Your task to perform on an android device: turn off sleep mode Image 0: 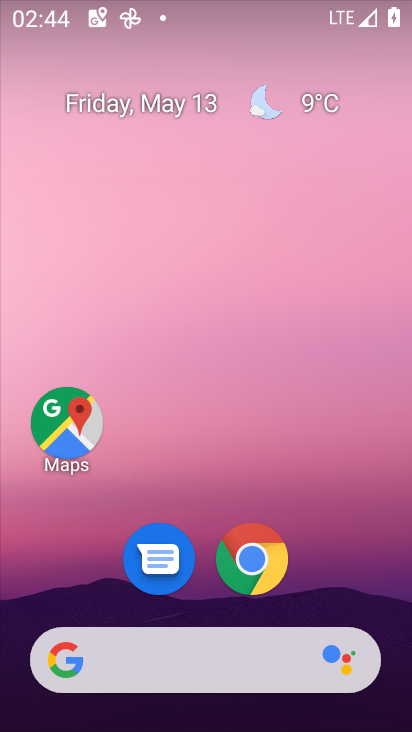
Step 0: drag from (401, 614) to (388, 398)
Your task to perform on an android device: turn off sleep mode Image 1: 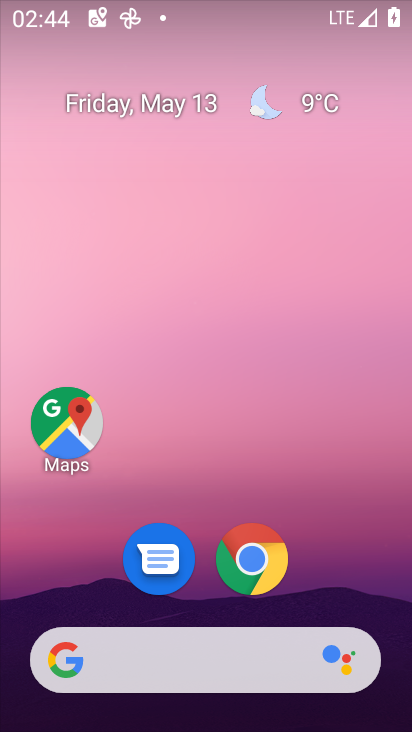
Step 1: drag from (401, 643) to (382, 290)
Your task to perform on an android device: turn off sleep mode Image 2: 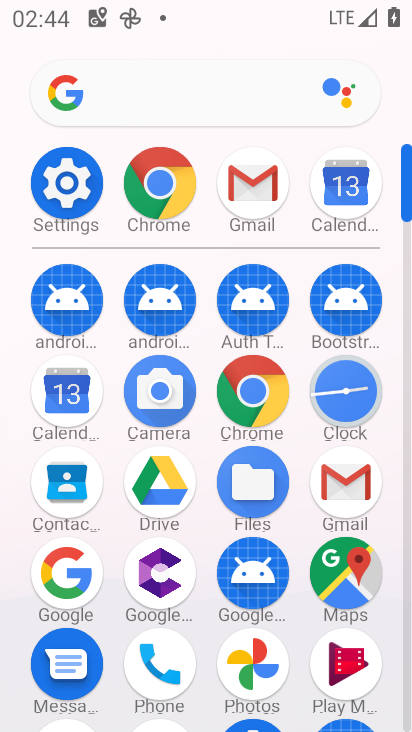
Step 2: click (47, 177)
Your task to perform on an android device: turn off sleep mode Image 3: 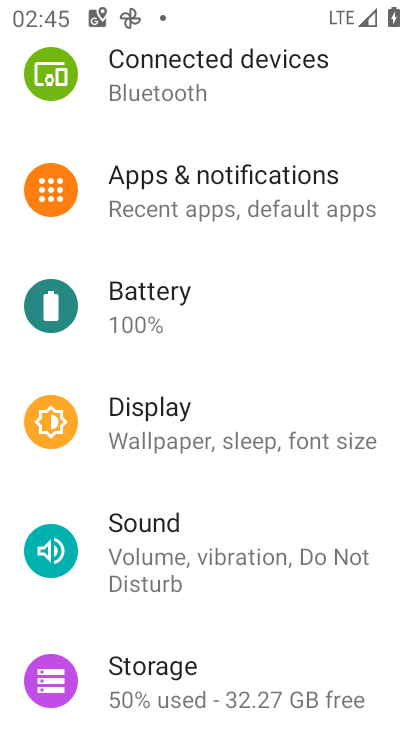
Step 3: click (225, 444)
Your task to perform on an android device: turn off sleep mode Image 4: 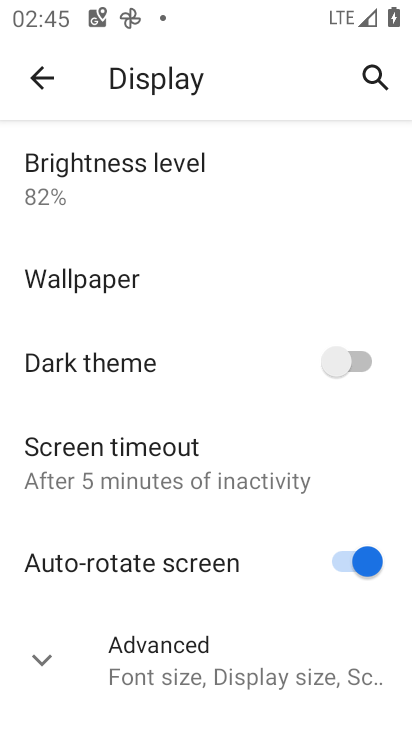
Step 4: click (119, 464)
Your task to perform on an android device: turn off sleep mode Image 5: 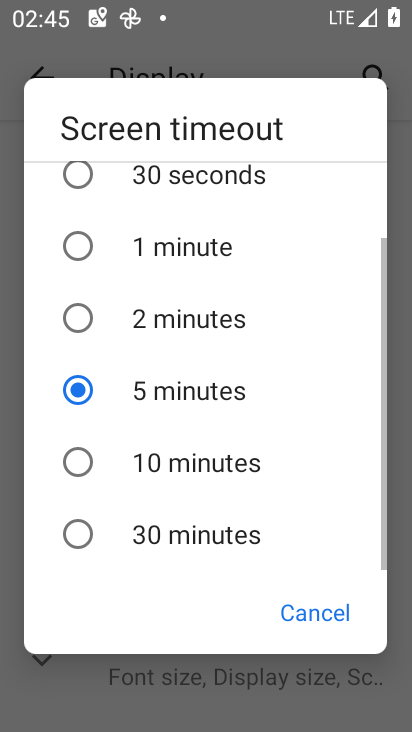
Step 5: task complete